Your task to perform on an android device: toggle show notifications on the lock screen Image 0: 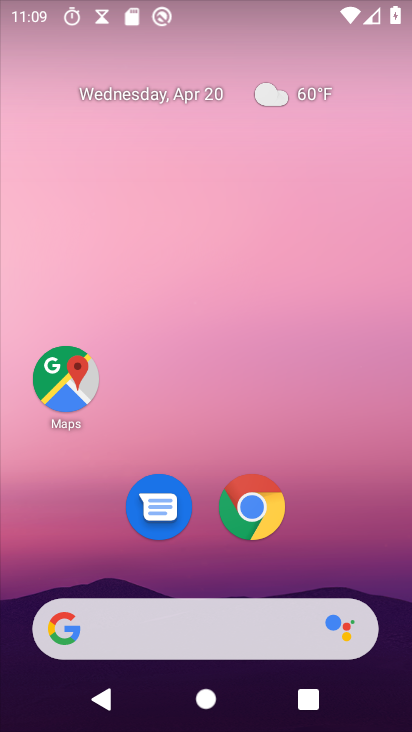
Step 0: drag from (187, 549) to (226, 50)
Your task to perform on an android device: toggle show notifications on the lock screen Image 1: 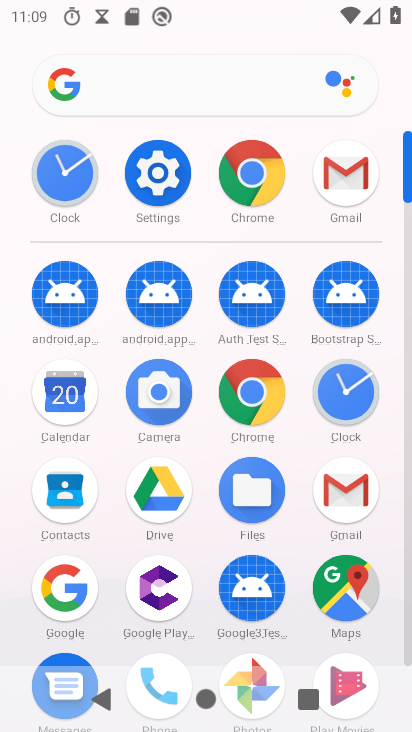
Step 1: click (158, 174)
Your task to perform on an android device: toggle show notifications on the lock screen Image 2: 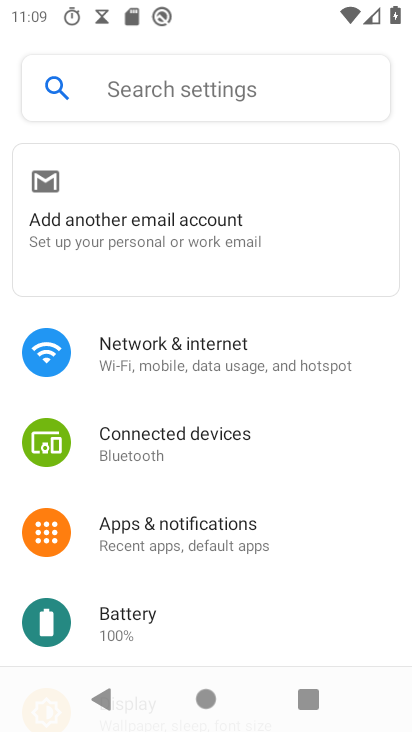
Step 2: click (200, 533)
Your task to perform on an android device: toggle show notifications on the lock screen Image 3: 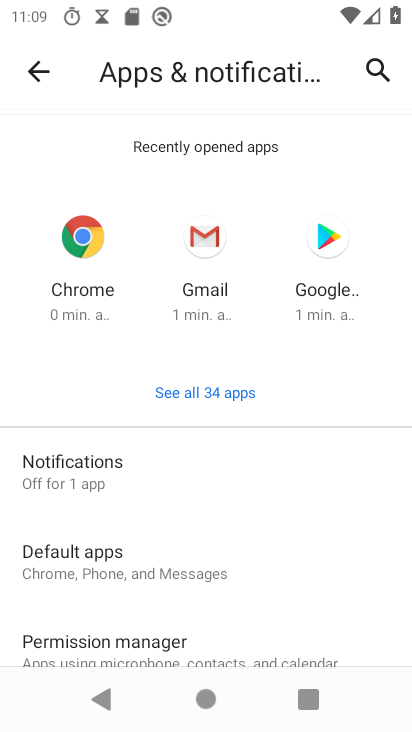
Step 3: click (85, 487)
Your task to perform on an android device: toggle show notifications on the lock screen Image 4: 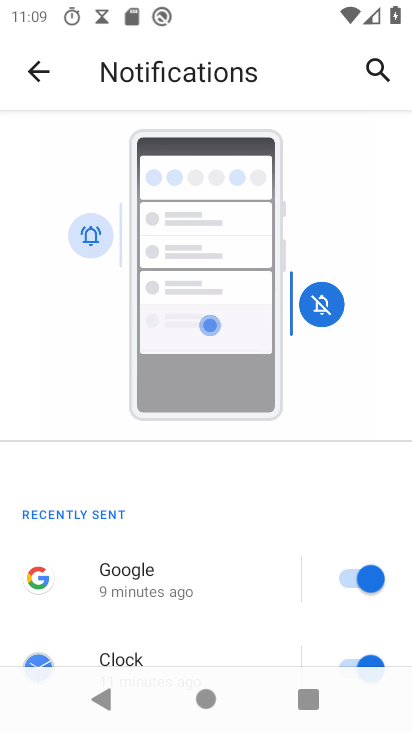
Step 4: drag from (148, 591) to (203, 239)
Your task to perform on an android device: toggle show notifications on the lock screen Image 5: 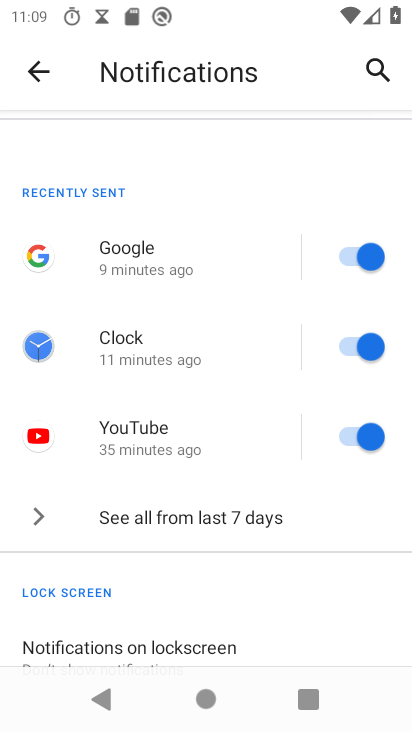
Step 5: drag from (184, 468) to (207, 214)
Your task to perform on an android device: toggle show notifications on the lock screen Image 6: 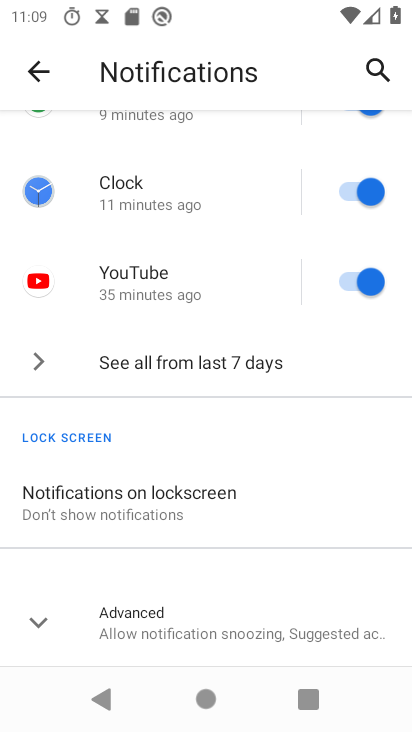
Step 6: click (178, 513)
Your task to perform on an android device: toggle show notifications on the lock screen Image 7: 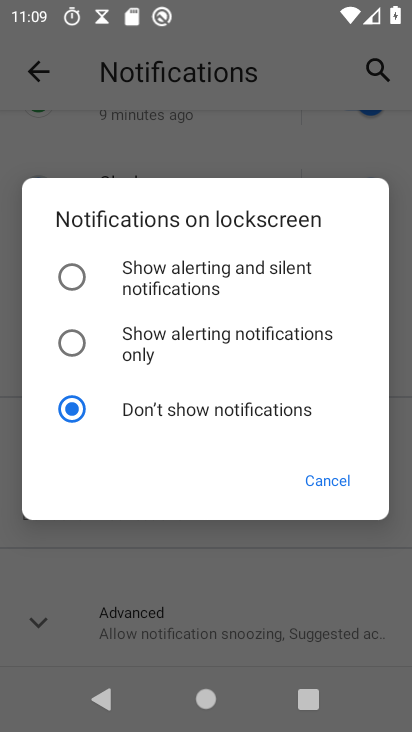
Step 7: click (91, 270)
Your task to perform on an android device: toggle show notifications on the lock screen Image 8: 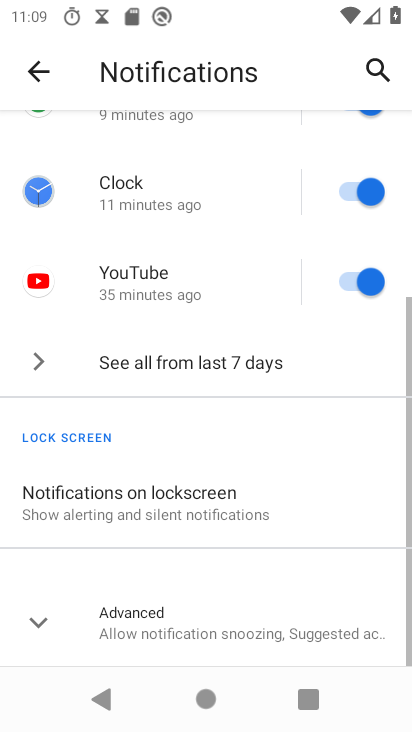
Step 8: task complete